Your task to perform on an android device: open chrome and create a bookmark for the current page Image 0: 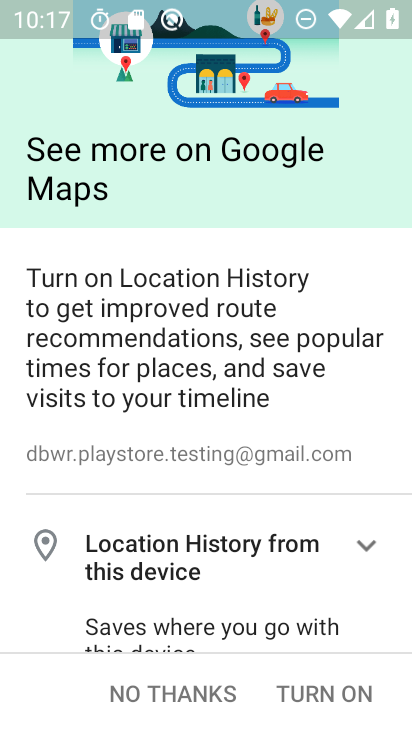
Step 0: press home button
Your task to perform on an android device: open chrome and create a bookmark for the current page Image 1: 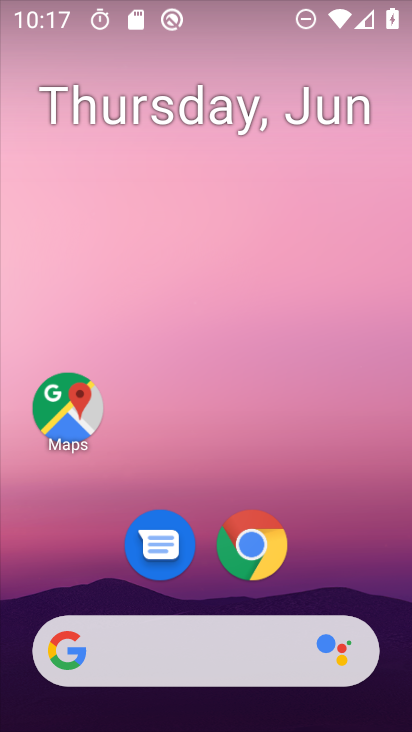
Step 1: click (246, 533)
Your task to perform on an android device: open chrome and create a bookmark for the current page Image 2: 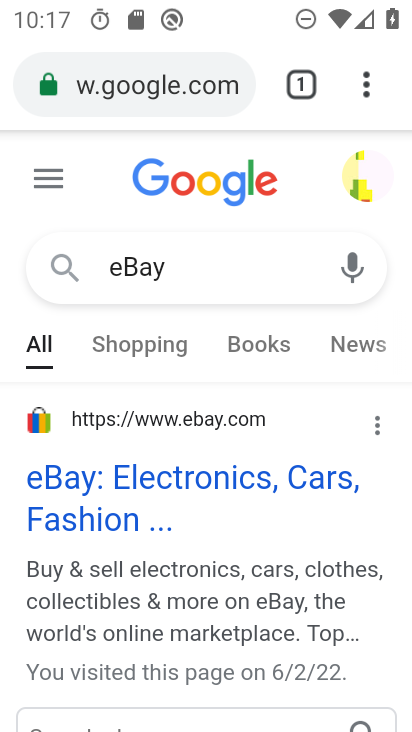
Step 2: click (353, 67)
Your task to perform on an android device: open chrome and create a bookmark for the current page Image 3: 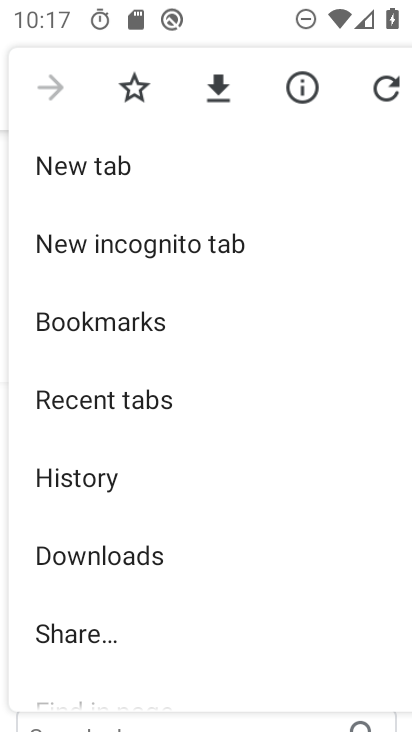
Step 3: click (133, 94)
Your task to perform on an android device: open chrome and create a bookmark for the current page Image 4: 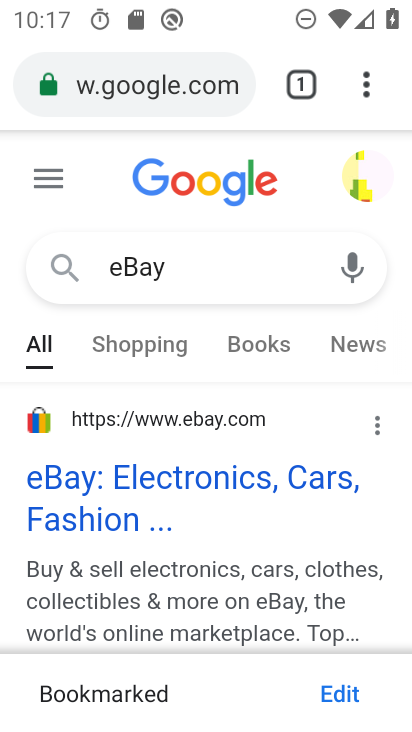
Step 4: task complete